Your task to perform on an android device: Do I have any events tomorrow? Image 0: 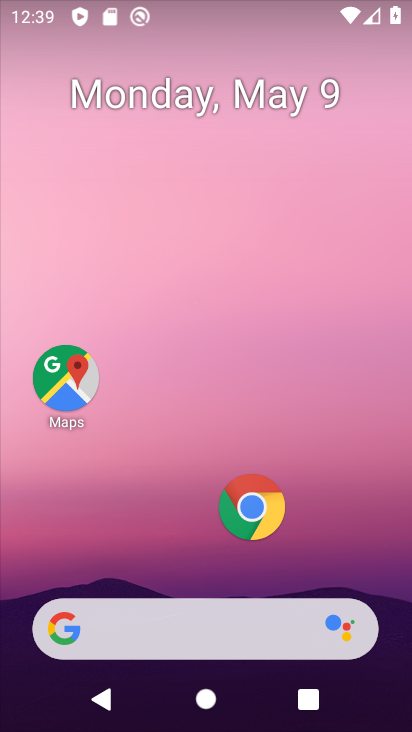
Step 0: drag from (194, 299) to (192, 165)
Your task to perform on an android device: Do I have any events tomorrow? Image 1: 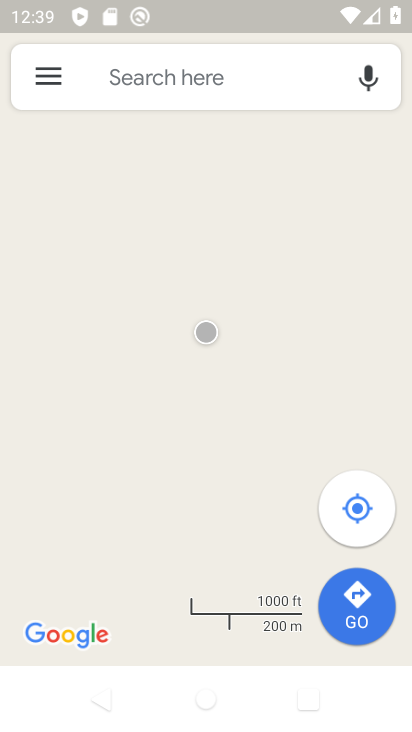
Step 1: press home button
Your task to perform on an android device: Do I have any events tomorrow? Image 2: 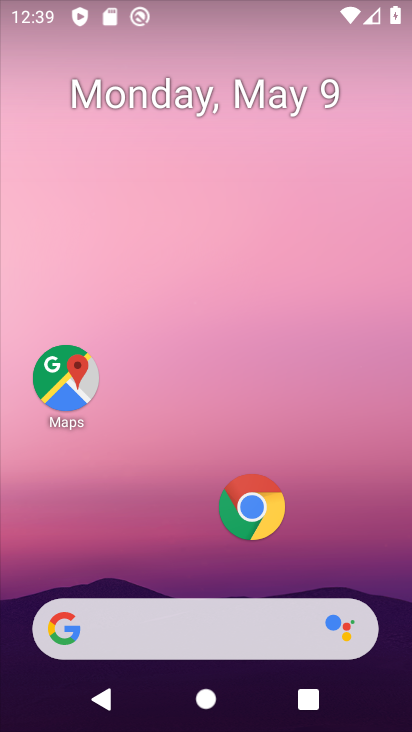
Step 2: drag from (178, 540) to (209, 78)
Your task to perform on an android device: Do I have any events tomorrow? Image 3: 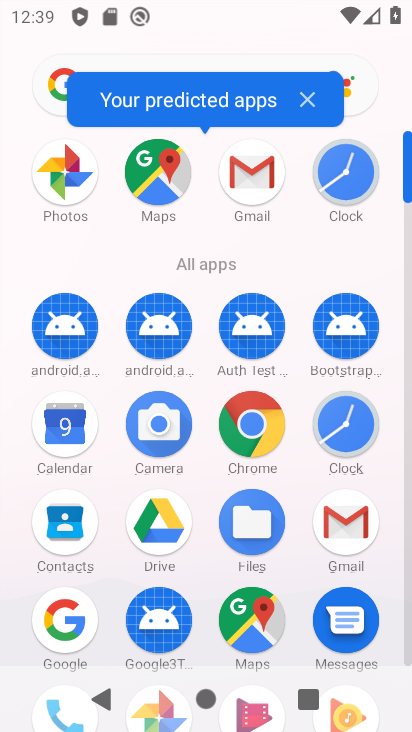
Step 3: click (66, 422)
Your task to perform on an android device: Do I have any events tomorrow? Image 4: 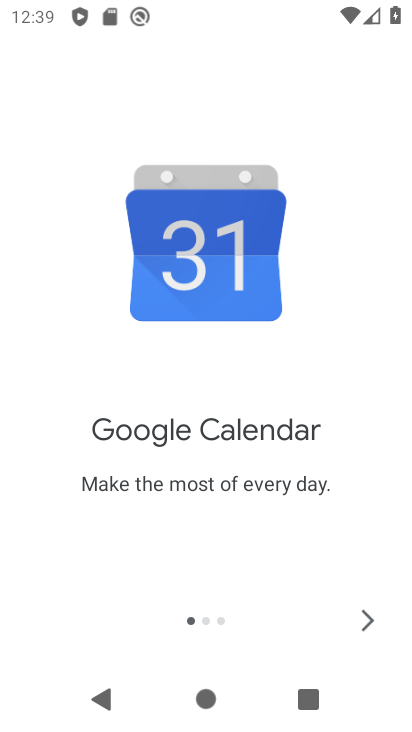
Step 4: click (351, 615)
Your task to perform on an android device: Do I have any events tomorrow? Image 5: 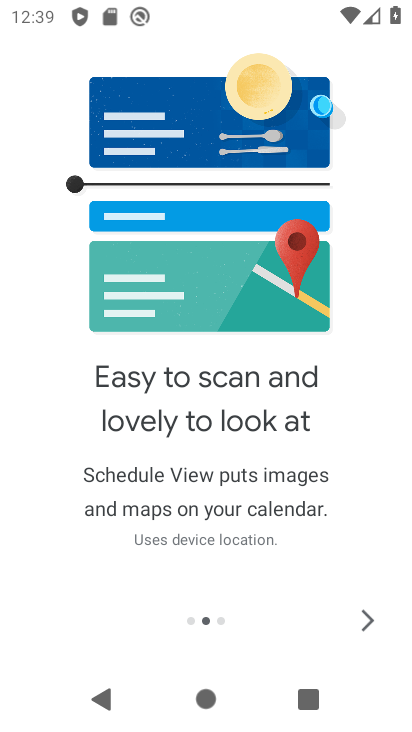
Step 5: click (351, 615)
Your task to perform on an android device: Do I have any events tomorrow? Image 6: 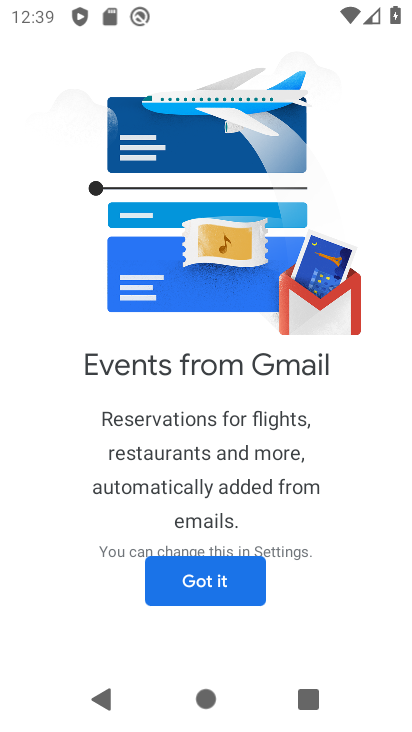
Step 6: click (213, 579)
Your task to perform on an android device: Do I have any events tomorrow? Image 7: 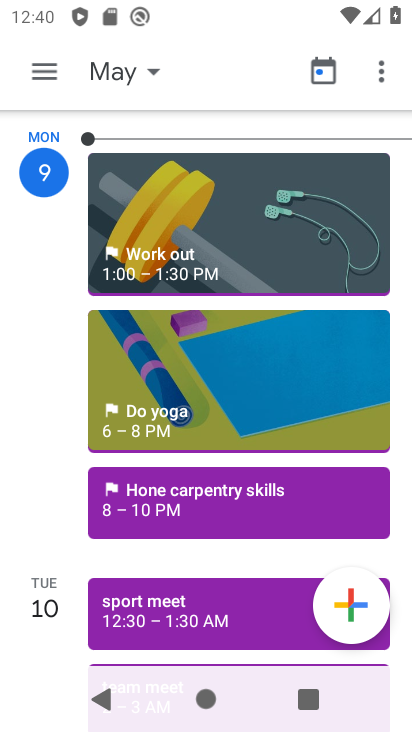
Step 7: click (149, 70)
Your task to perform on an android device: Do I have any events tomorrow? Image 8: 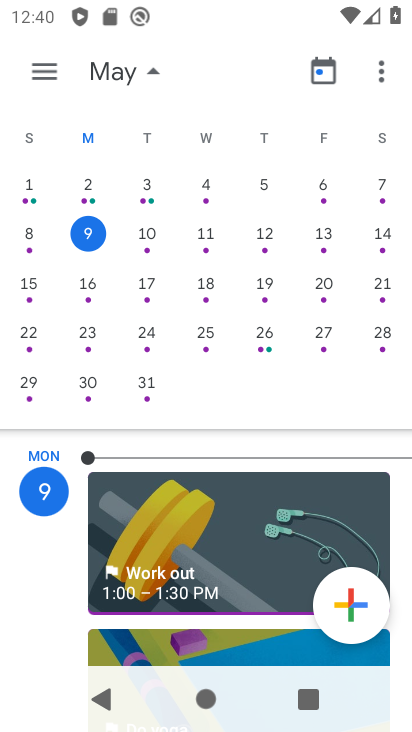
Step 8: click (151, 226)
Your task to perform on an android device: Do I have any events tomorrow? Image 9: 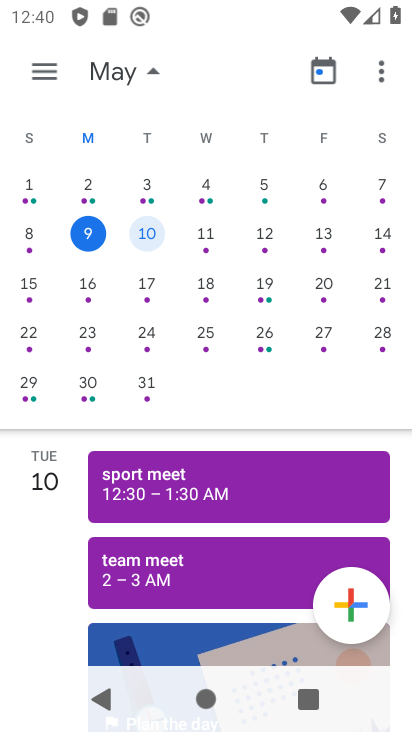
Step 9: task complete